Your task to perform on an android device: Go to sound settings Image 0: 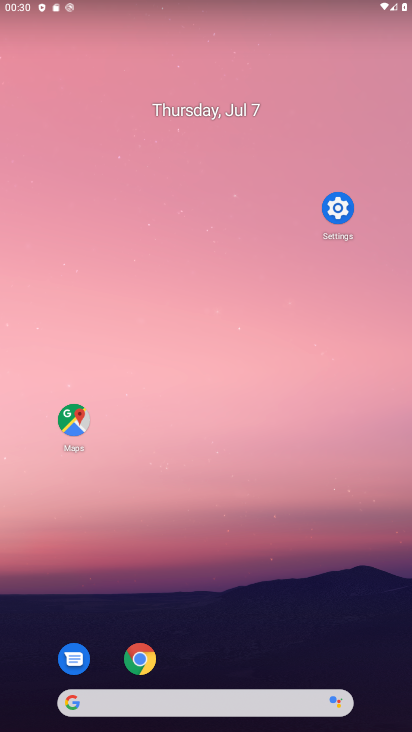
Step 0: drag from (275, 716) to (259, 423)
Your task to perform on an android device: Go to sound settings Image 1: 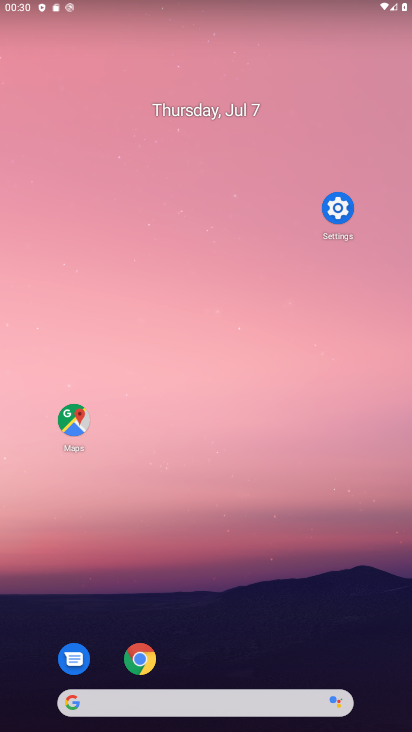
Step 1: drag from (287, 602) to (222, 160)
Your task to perform on an android device: Go to sound settings Image 2: 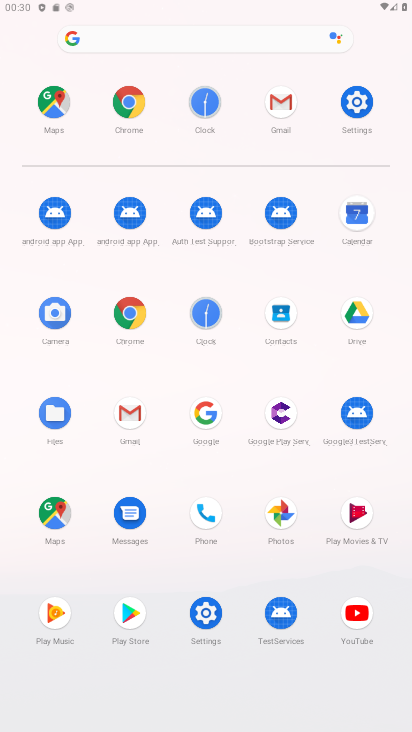
Step 2: drag from (241, 493) to (165, 64)
Your task to perform on an android device: Go to sound settings Image 3: 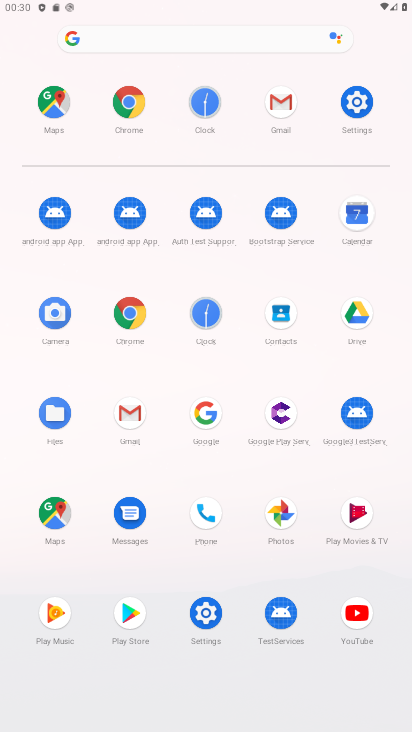
Step 3: click (363, 105)
Your task to perform on an android device: Go to sound settings Image 4: 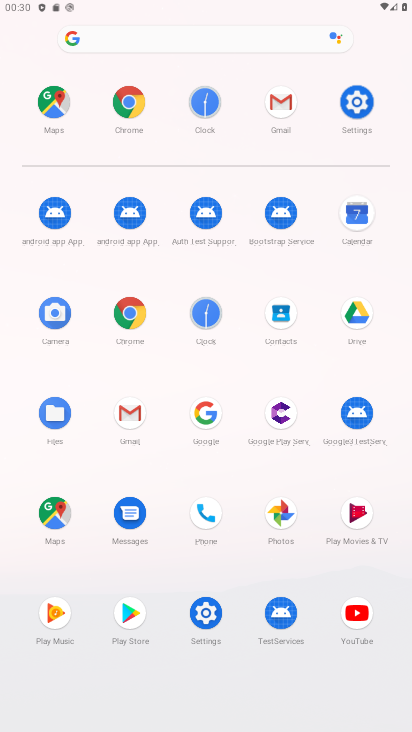
Step 4: click (363, 105)
Your task to perform on an android device: Go to sound settings Image 5: 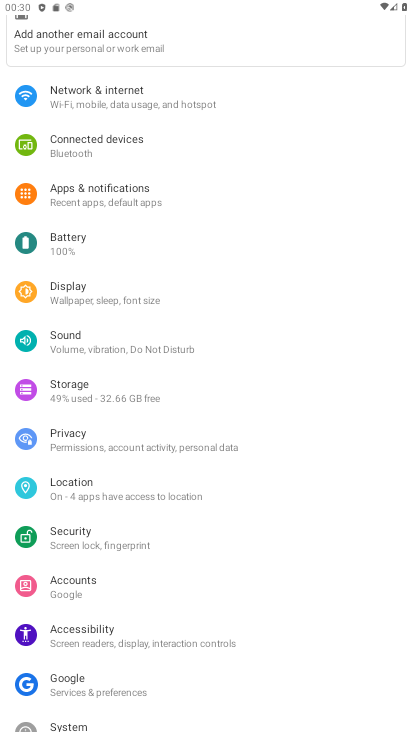
Step 5: click (75, 350)
Your task to perform on an android device: Go to sound settings Image 6: 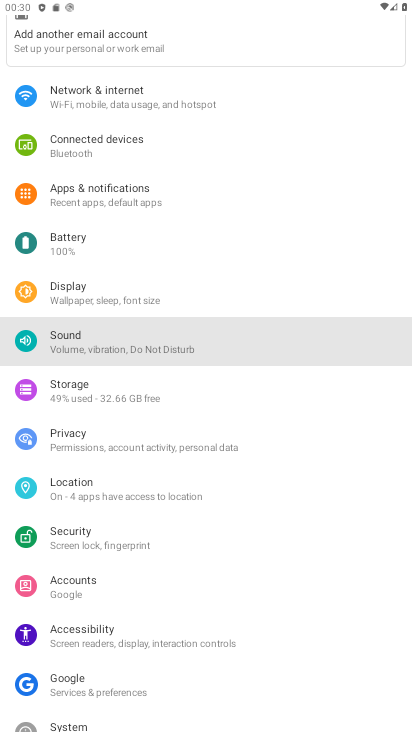
Step 6: click (71, 345)
Your task to perform on an android device: Go to sound settings Image 7: 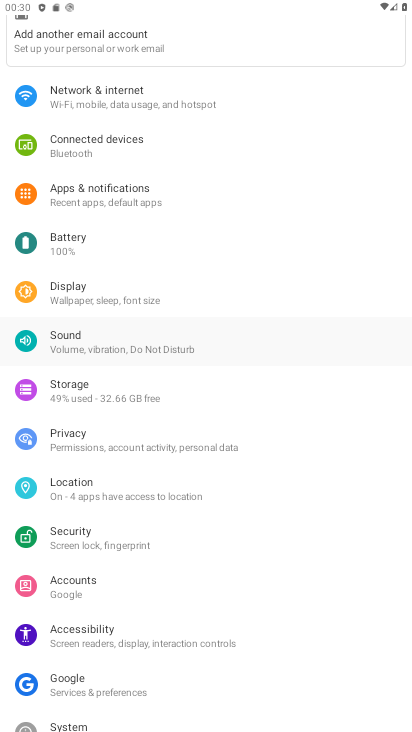
Step 7: click (72, 342)
Your task to perform on an android device: Go to sound settings Image 8: 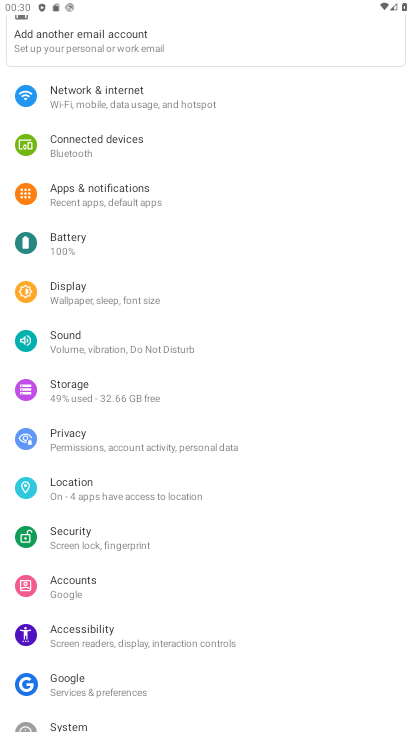
Step 8: click (72, 342)
Your task to perform on an android device: Go to sound settings Image 9: 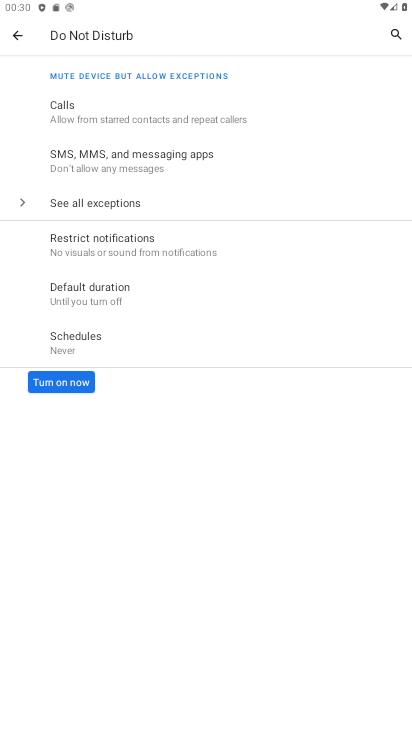
Step 9: click (75, 338)
Your task to perform on an android device: Go to sound settings Image 10: 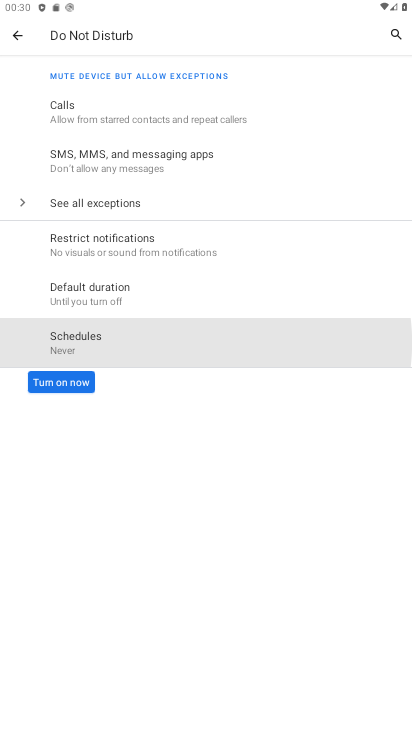
Step 10: click (76, 335)
Your task to perform on an android device: Go to sound settings Image 11: 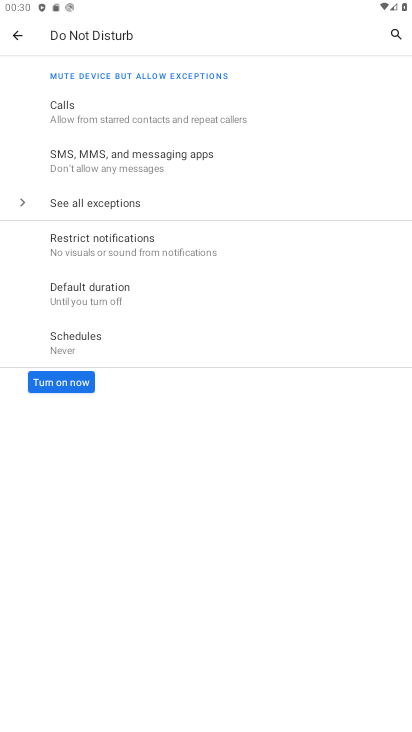
Step 11: click (76, 335)
Your task to perform on an android device: Go to sound settings Image 12: 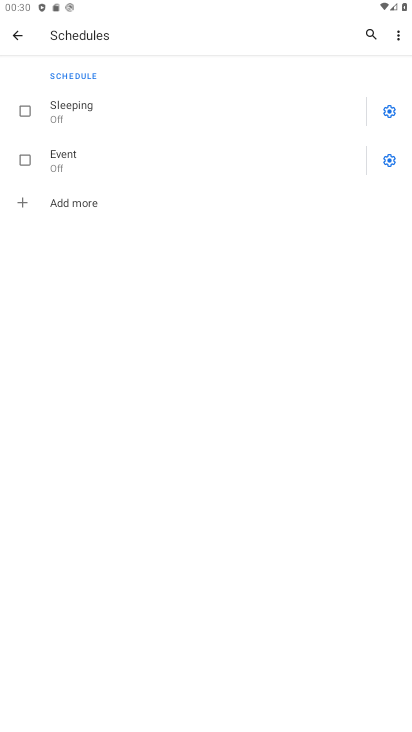
Step 12: click (15, 40)
Your task to perform on an android device: Go to sound settings Image 13: 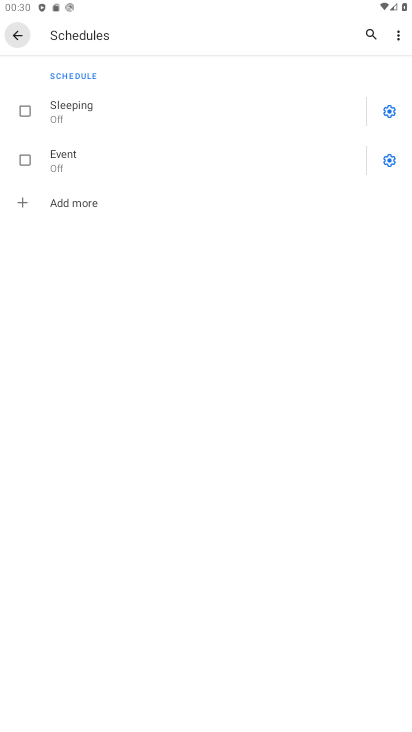
Step 13: click (15, 40)
Your task to perform on an android device: Go to sound settings Image 14: 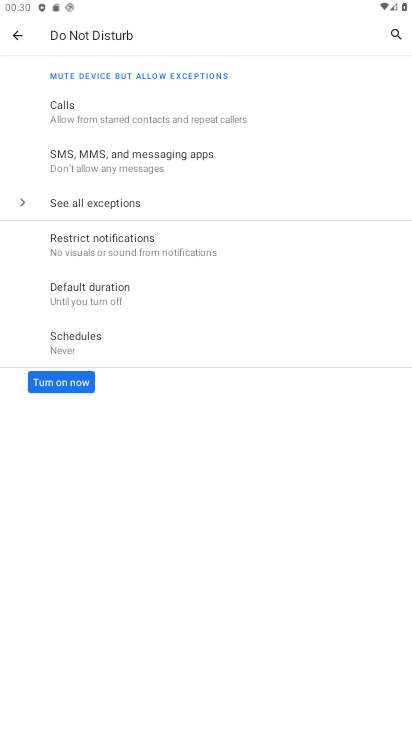
Step 14: click (14, 24)
Your task to perform on an android device: Go to sound settings Image 15: 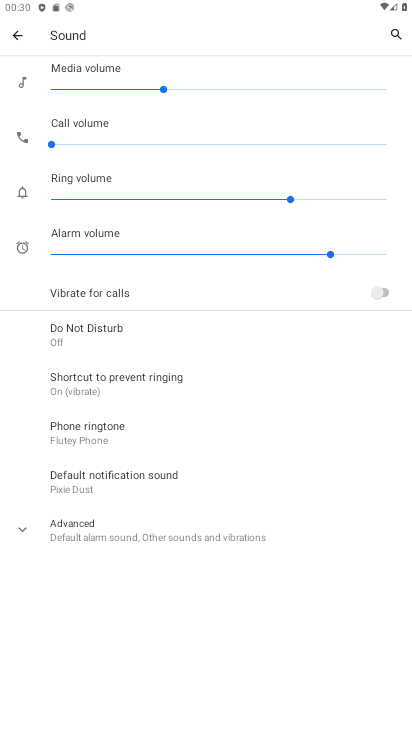
Step 15: task complete